Your task to perform on an android device: Open the calendar app, open the side menu, and click the "Day" option Image 0: 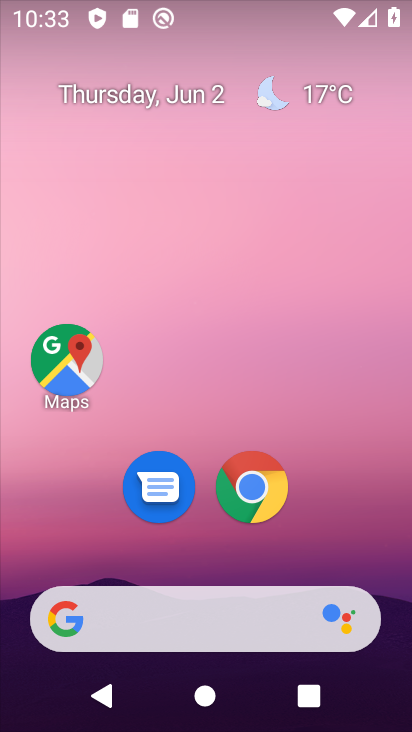
Step 0: drag from (190, 590) to (236, 215)
Your task to perform on an android device: Open the calendar app, open the side menu, and click the "Day" option Image 1: 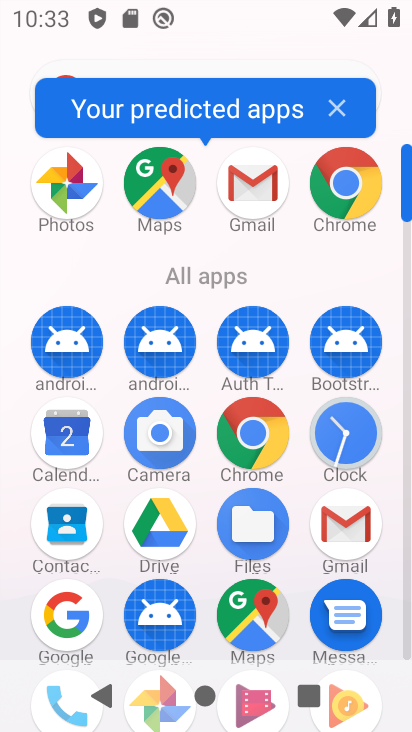
Step 1: click (79, 435)
Your task to perform on an android device: Open the calendar app, open the side menu, and click the "Day" option Image 2: 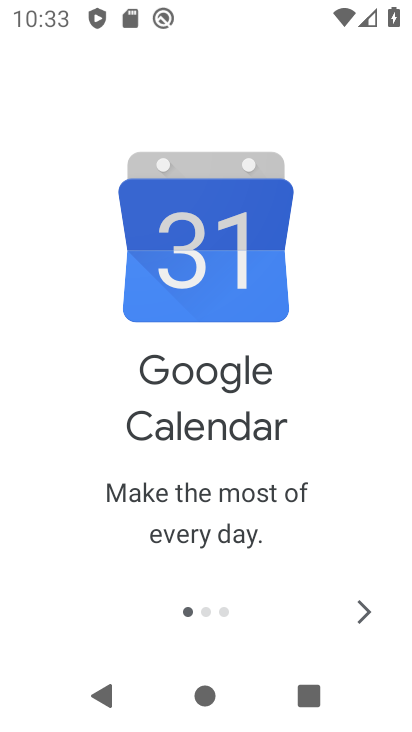
Step 2: click (362, 620)
Your task to perform on an android device: Open the calendar app, open the side menu, and click the "Day" option Image 3: 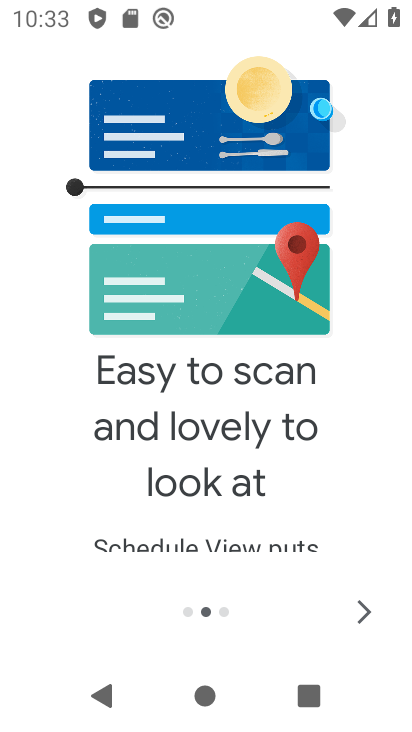
Step 3: click (362, 620)
Your task to perform on an android device: Open the calendar app, open the side menu, and click the "Day" option Image 4: 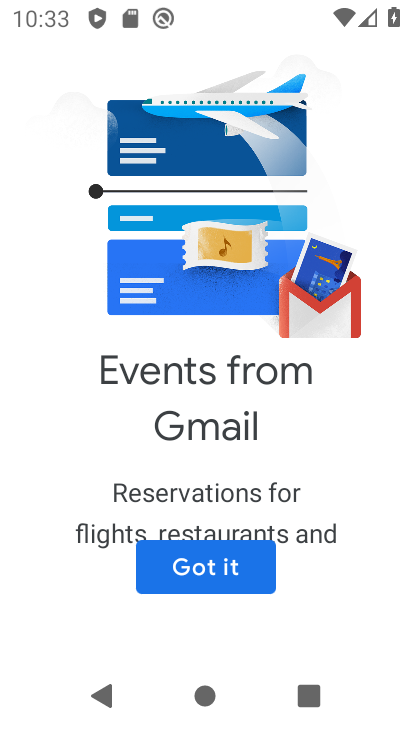
Step 4: click (197, 572)
Your task to perform on an android device: Open the calendar app, open the side menu, and click the "Day" option Image 5: 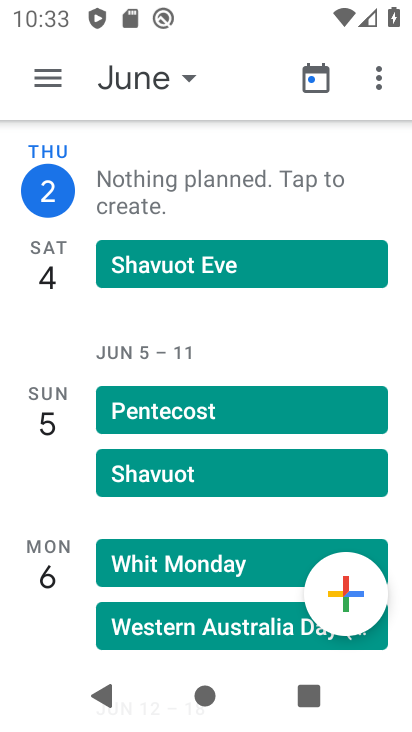
Step 5: click (164, 77)
Your task to perform on an android device: Open the calendar app, open the side menu, and click the "Day" option Image 6: 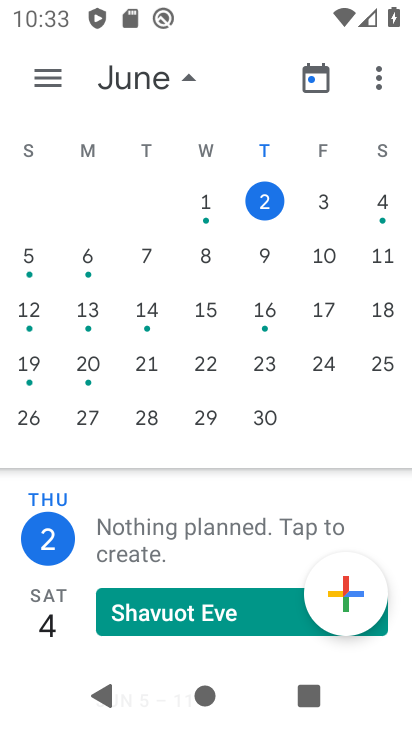
Step 6: click (42, 85)
Your task to perform on an android device: Open the calendar app, open the side menu, and click the "Day" option Image 7: 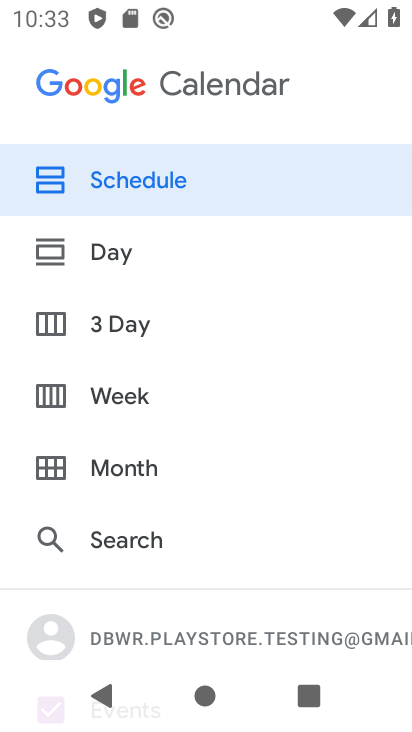
Step 7: click (123, 273)
Your task to perform on an android device: Open the calendar app, open the side menu, and click the "Day" option Image 8: 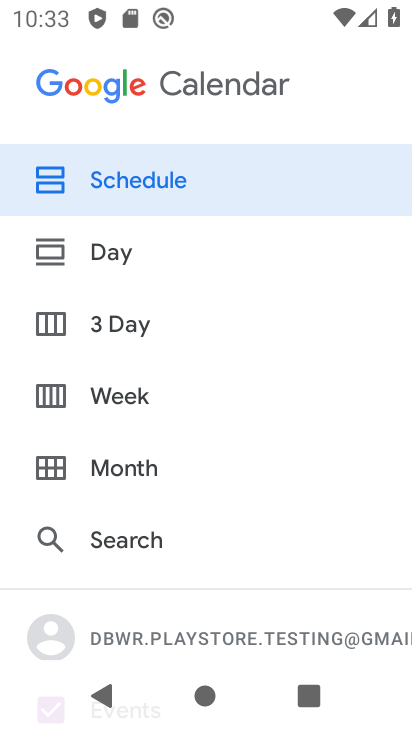
Step 8: click (122, 254)
Your task to perform on an android device: Open the calendar app, open the side menu, and click the "Day" option Image 9: 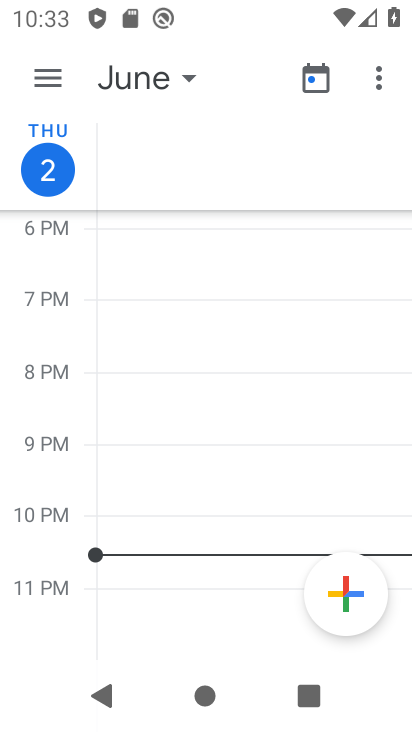
Step 9: task complete